Your task to perform on an android device: set the stopwatch Image 0: 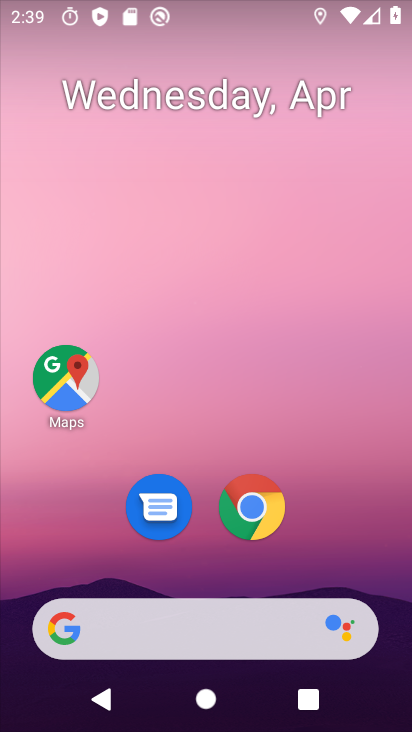
Step 0: drag from (90, 159) to (79, 88)
Your task to perform on an android device: set the stopwatch Image 1: 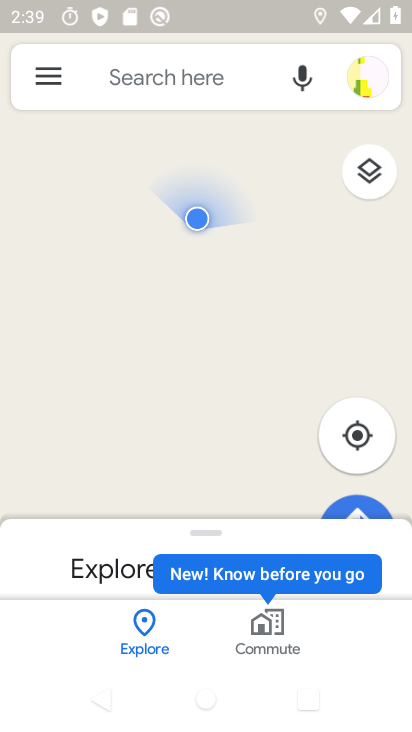
Step 1: press home button
Your task to perform on an android device: set the stopwatch Image 2: 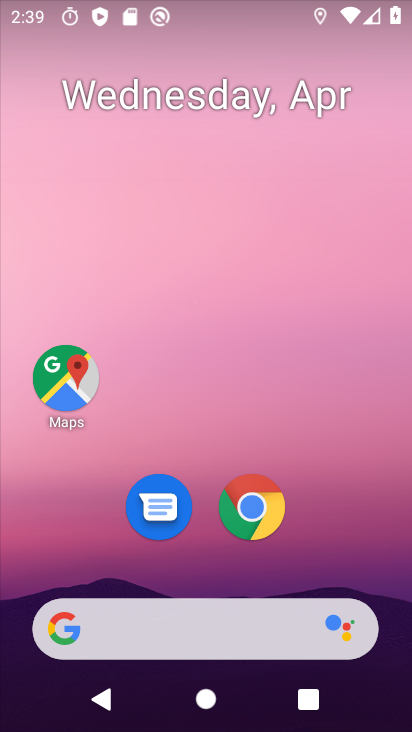
Step 2: drag from (213, 567) to (116, 99)
Your task to perform on an android device: set the stopwatch Image 3: 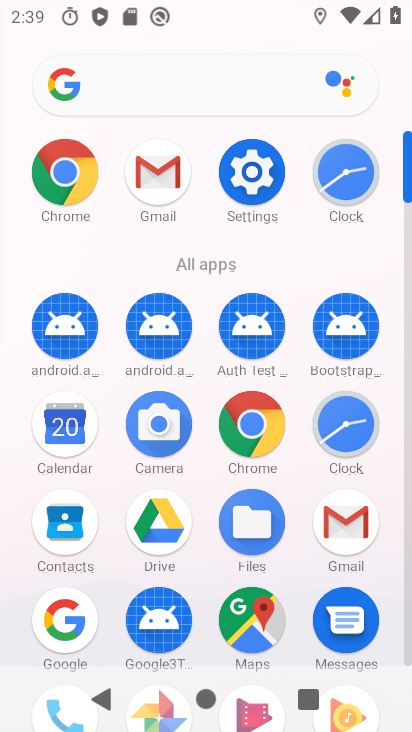
Step 3: click (344, 166)
Your task to perform on an android device: set the stopwatch Image 4: 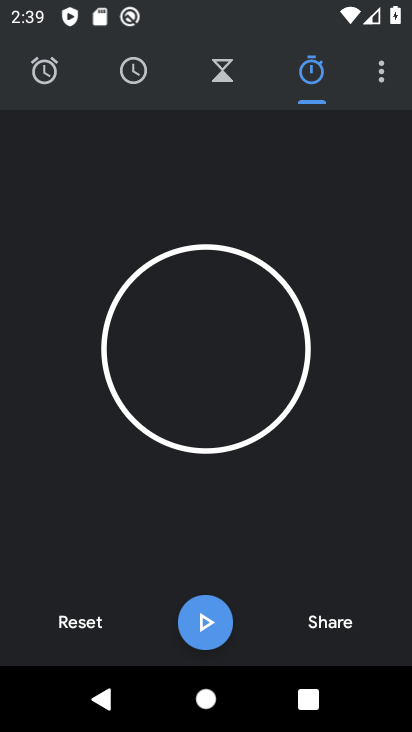
Step 4: click (217, 632)
Your task to perform on an android device: set the stopwatch Image 5: 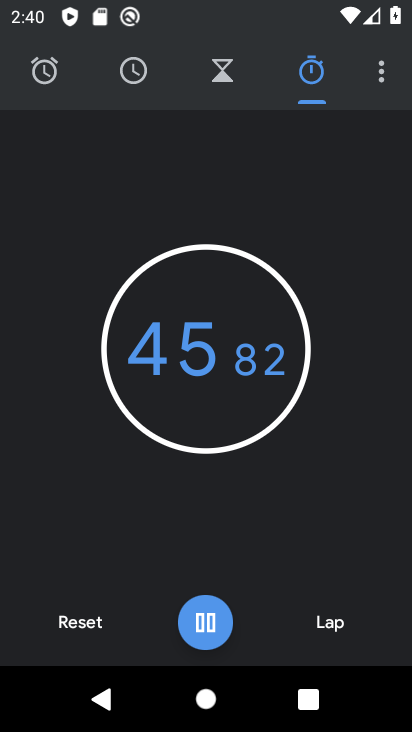
Step 5: click (200, 619)
Your task to perform on an android device: set the stopwatch Image 6: 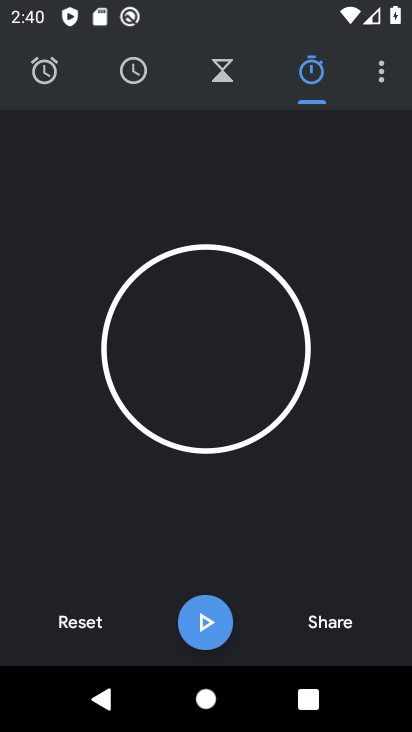
Step 6: task complete